Your task to perform on an android device: Open accessibility settings Image 0: 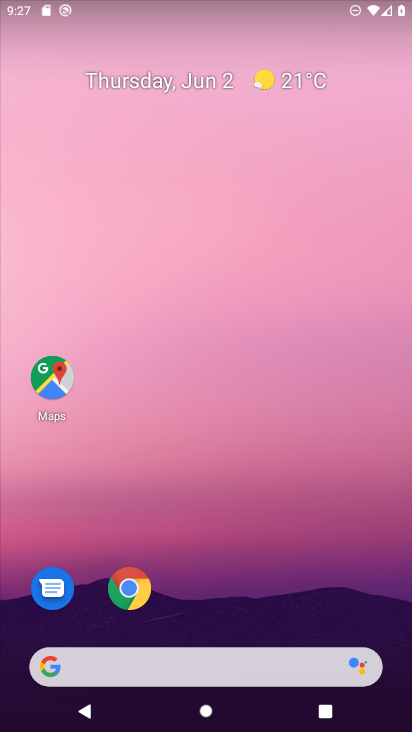
Step 0: click (229, 332)
Your task to perform on an android device: Open accessibility settings Image 1: 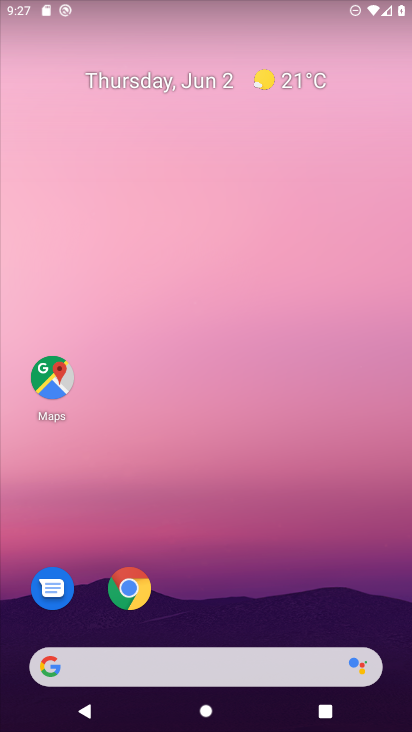
Step 1: drag from (207, 605) to (276, 131)
Your task to perform on an android device: Open accessibility settings Image 2: 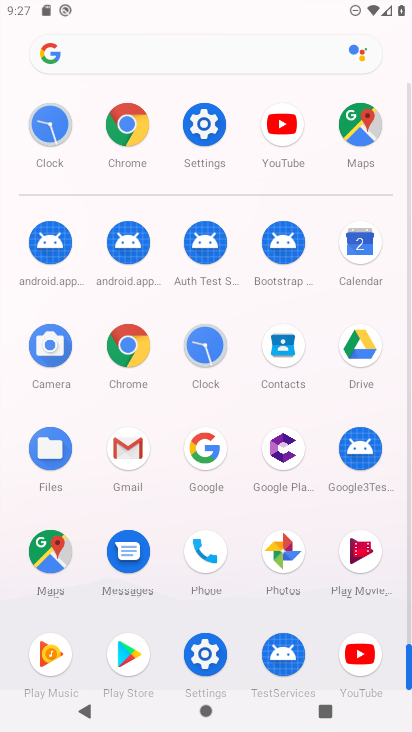
Step 2: click (209, 138)
Your task to perform on an android device: Open accessibility settings Image 3: 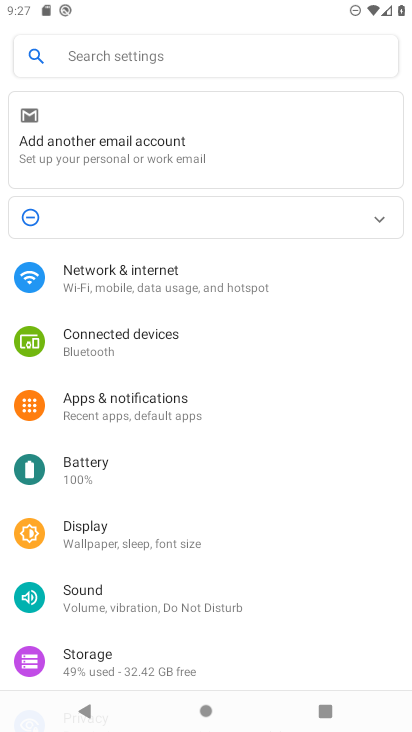
Step 3: drag from (168, 559) to (194, 229)
Your task to perform on an android device: Open accessibility settings Image 4: 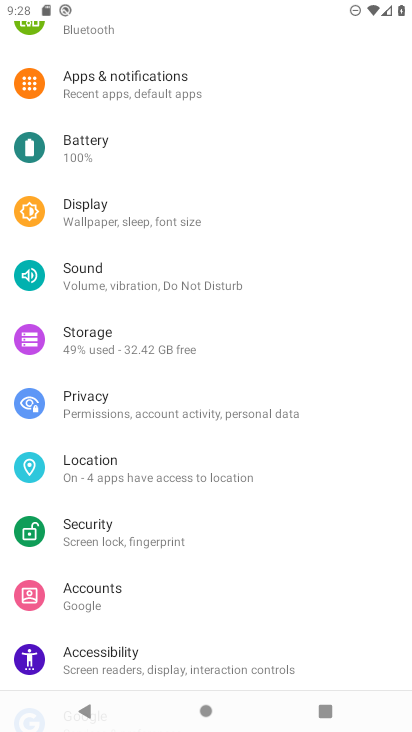
Step 4: drag from (158, 546) to (190, 358)
Your task to perform on an android device: Open accessibility settings Image 5: 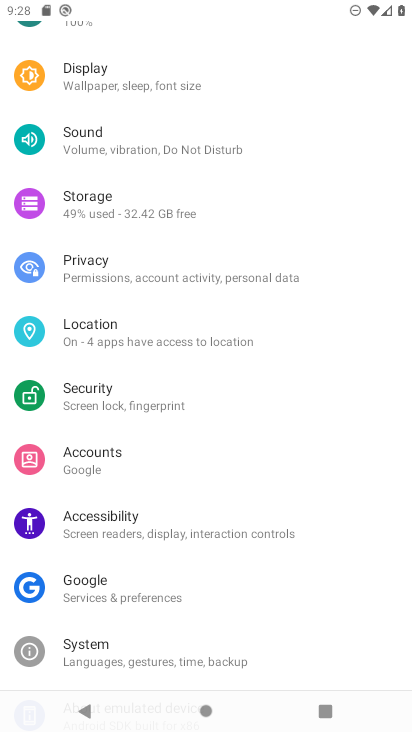
Step 5: click (175, 519)
Your task to perform on an android device: Open accessibility settings Image 6: 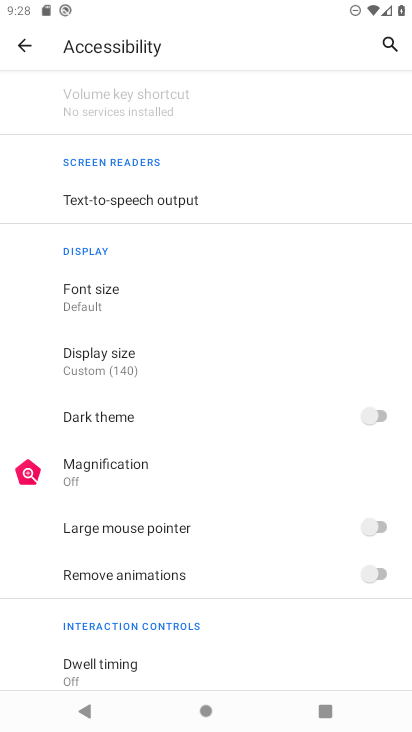
Step 6: task complete